Your task to perform on an android device: delete the emails in spam in the gmail app Image 0: 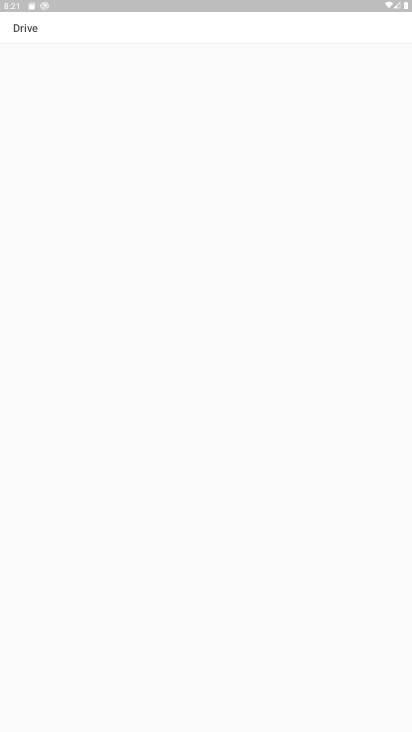
Step 0: click (301, 366)
Your task to perform on an android device: delete the emails in spam in the gmail app Image 1: 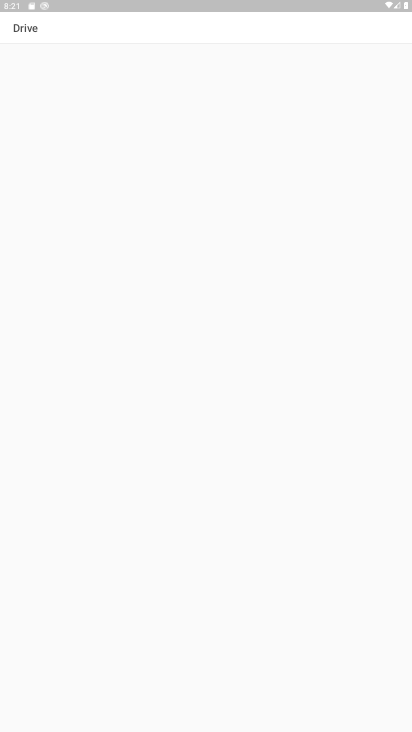
Step 1: press home button
Your task to perform on an android device: delete the emails in spam in the gmail app Image 2: 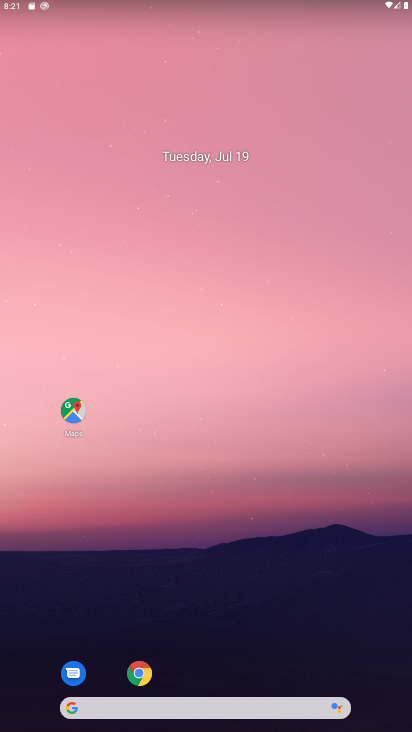
Step 2: drag from (369, 670) to (347, 108)
Your task to perform on an android device: delete the emails in spam in the gmail app Image 3: 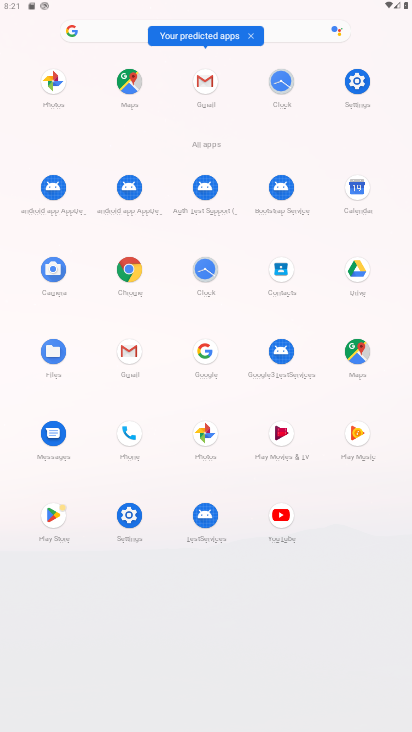
Step 3: click (129, 351)
Your task to perform on an android device: delete the emails in spam in the gmail app Image 4: 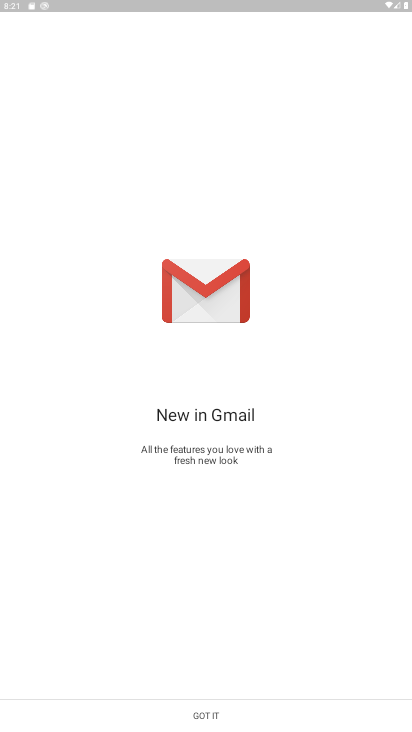
Step 4: click (201, 716)
Your task to perform on an android device: delete the emails in spam in the gmail app Image 5: 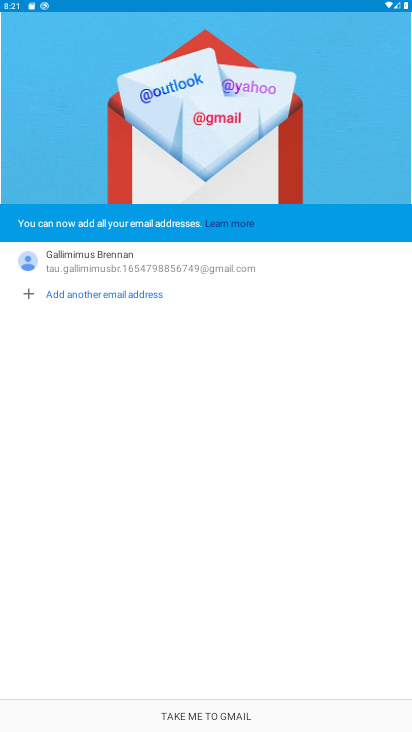
Step 5: click (201, 716)
Your task to perform on an android device: delete the emails in spam in the gmail app Image 6: 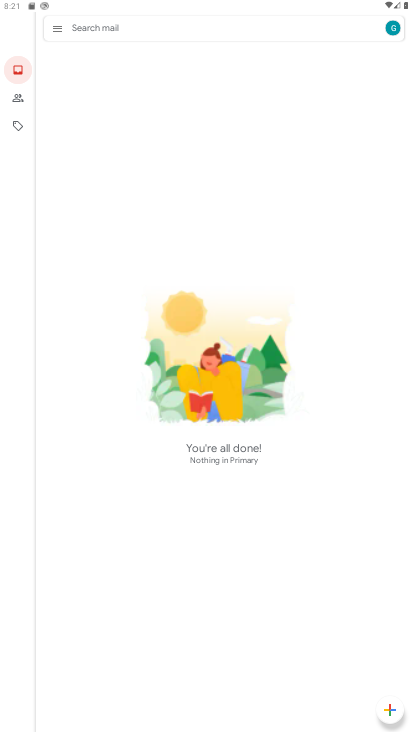
Step 6: click (55, 30)
Your task to perform on an android device: delete the emails in spam in the gmail app Image 7: 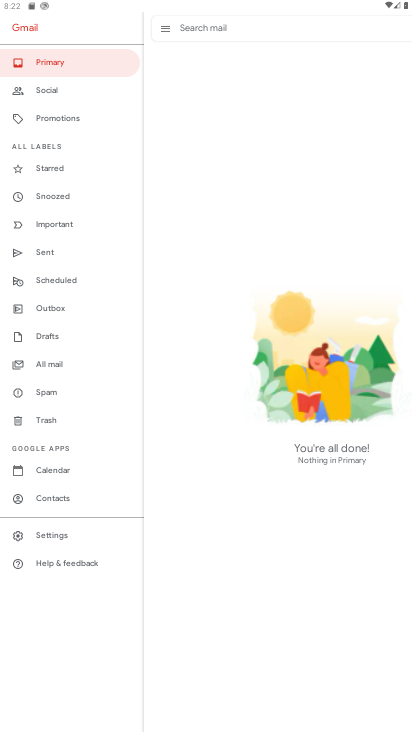
Step 7: click (49, 392)
Your task to perform on an android device: delete the emails in spam in the gmail app Image 8: 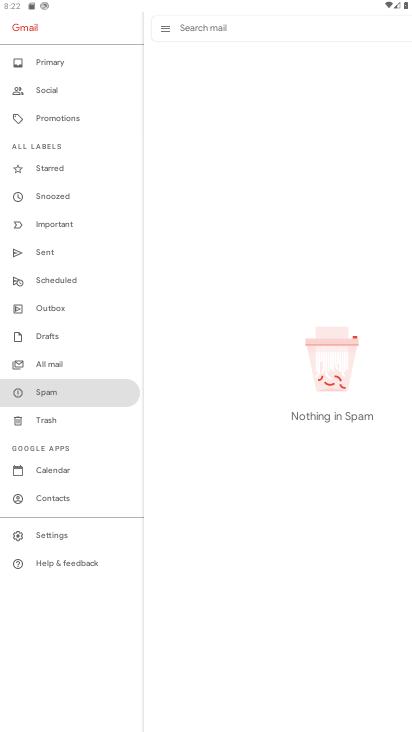
Step 8: task complete